Your task to perform on an android device: turn on the 24-hour format for clock Image 0: 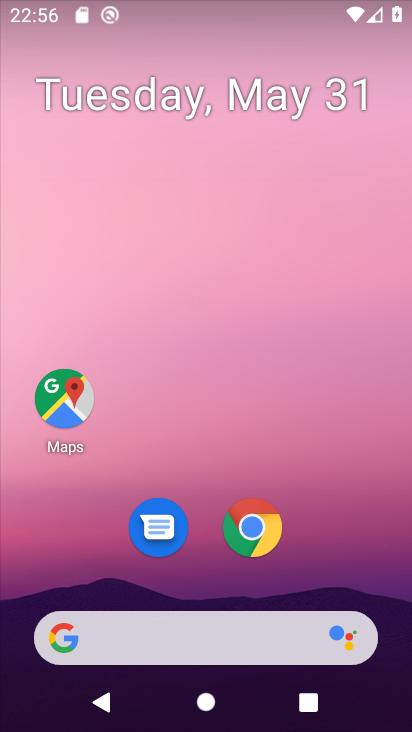
Step 0: drag from (324, 447) to (286, 8)
Your task to perform on an android device: turn on the 24-hour format for clock Image 1: 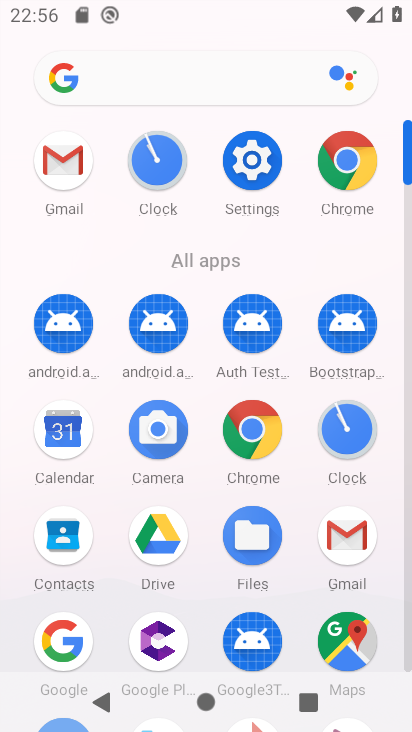
Step 1: click (156, 158)
Your task to perform on an android device: turn on the 24-hour format for clock Image 2: 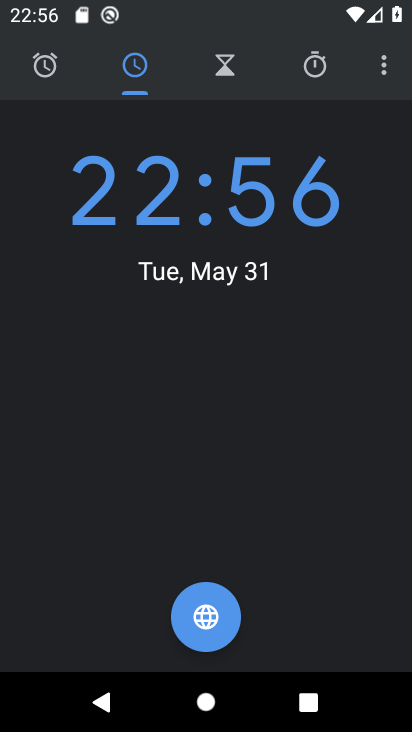
Step 2: click (384, 70)
Your task to perform on an android device: turn on the 24-hour format for clock Image 3: 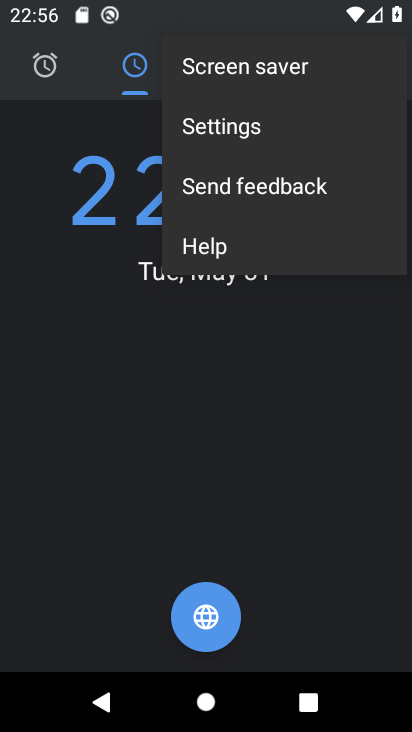
Step 3: click (266, 141)
Your task to perform on an android device: turn on the 24-hour format for clock Image 4: 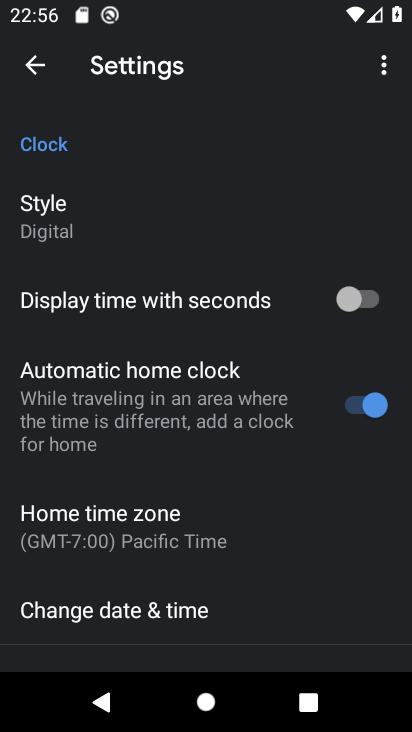
Step 4: click (194, 613)
Your task to perform on an android device: turn on the 24-hour format for clock Image 5: 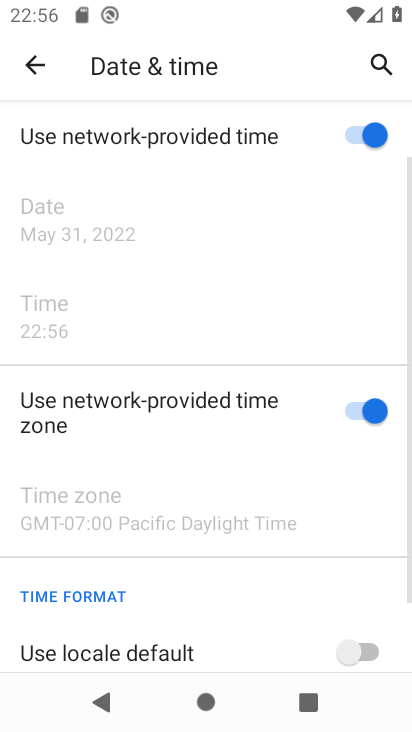
Step 5: task complete